Your task to perform on an android device: open a new tab in the chrome app Image 0: 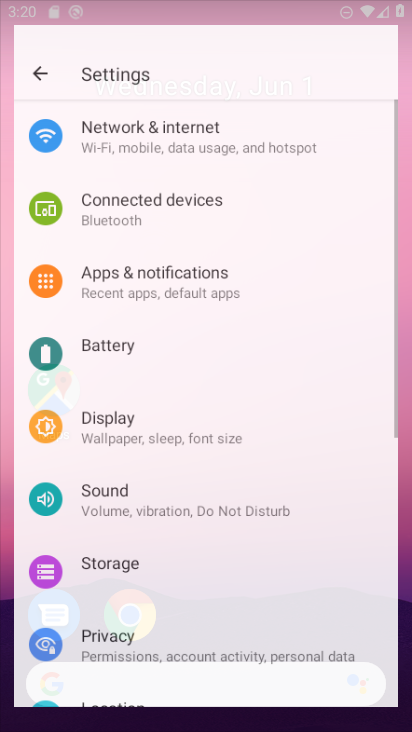
Step 0: press home button
Your task to perform on an android device: open a new tab in the chrome app Image 1: 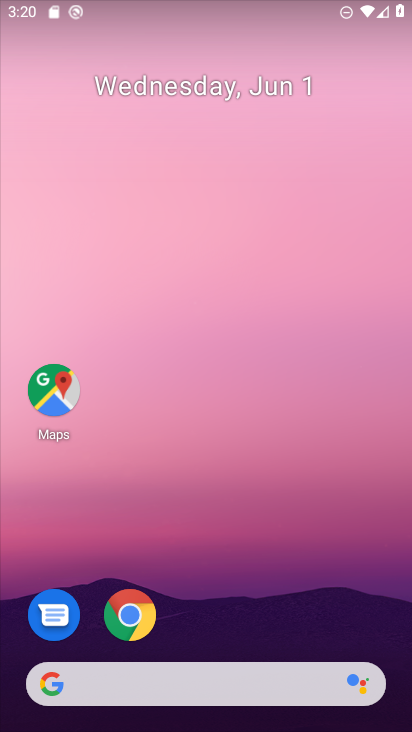
Step 1: click (128, 607)
Your task to perform on an android device: open a new tab in the chrome app Image 2: 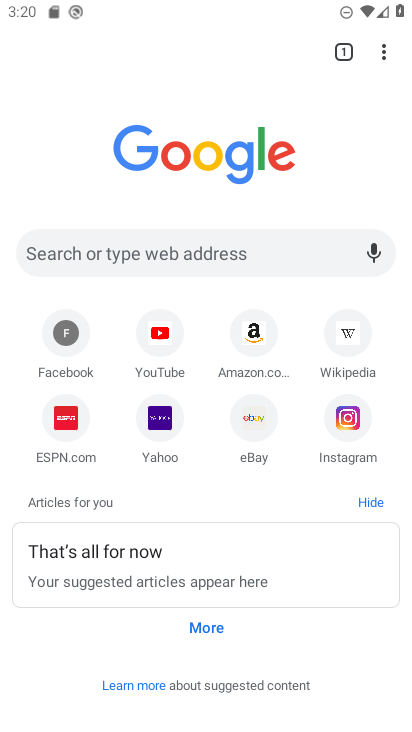
Step 2: click (341, 47)
Your task to perform on an android device: open a new tab in the chrome app Image 3: 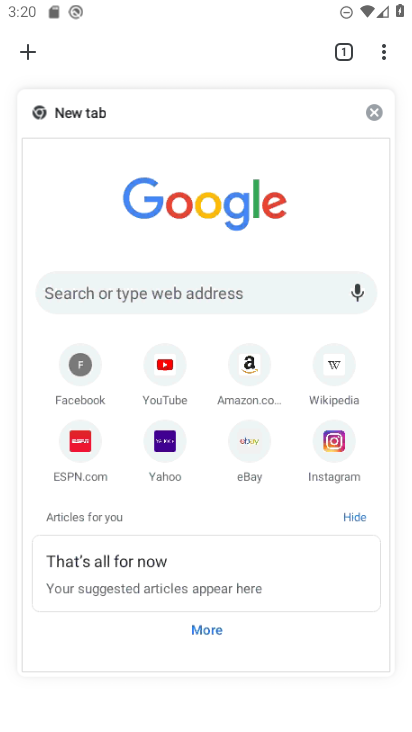
Step 3: click (31, 53)
Your task to perform on an android device: open a new tab in the chrome app Image 4: 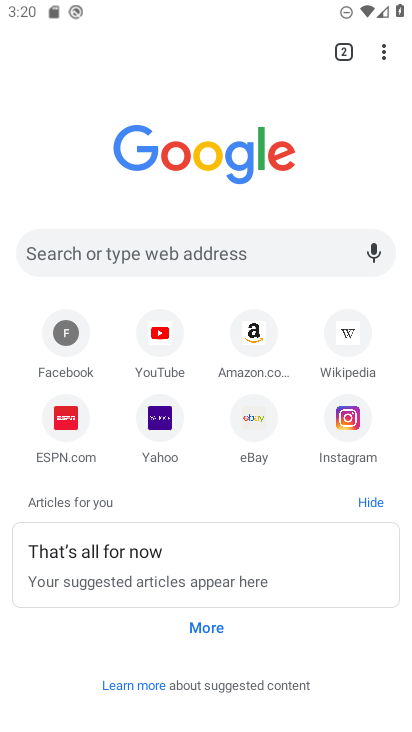
Step 4: task complete